Your task to perform on an android device: Open Wikipedia Image 0: 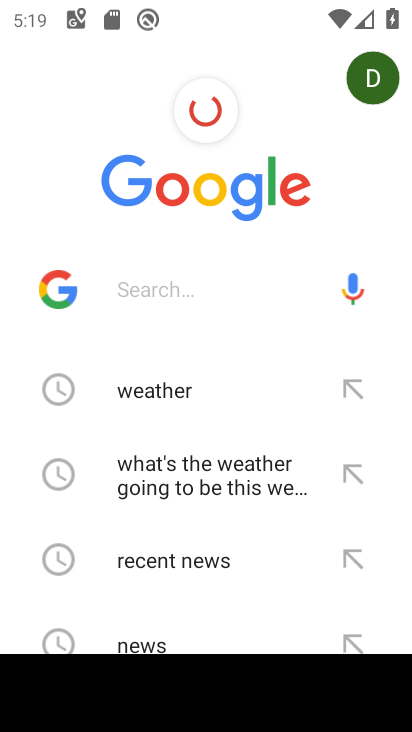
Step 0: press home button
Your task to perform on an android device: Open Wikipedia Image 1: 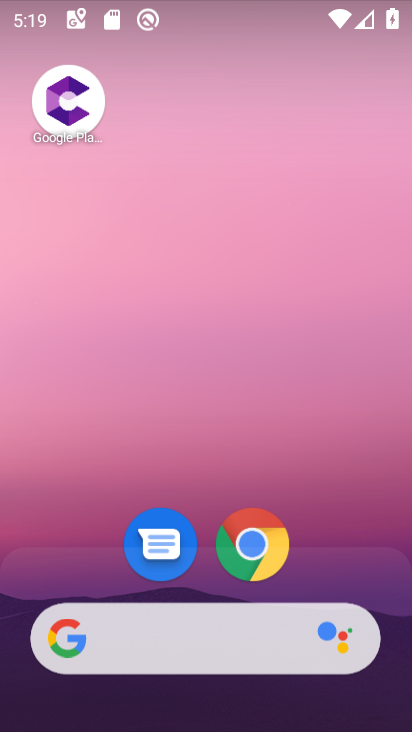
Step 1: click (238, 545)
Your task to perform on an android device: Open Wikipedia Image 2: 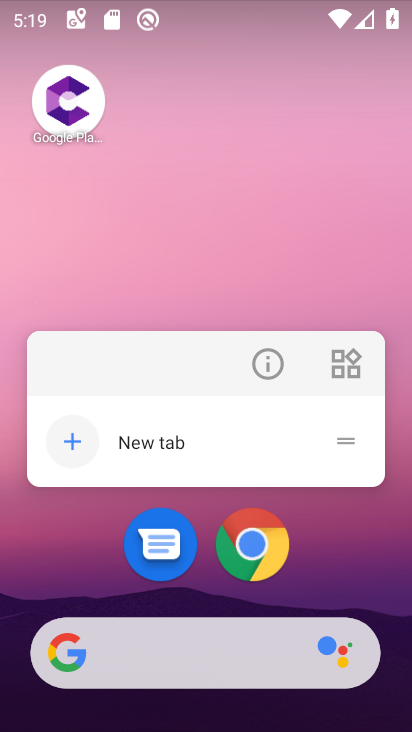
Step 2: click (258, 551)
Your task to perform on an android device: Open Wikipedia Image 3: 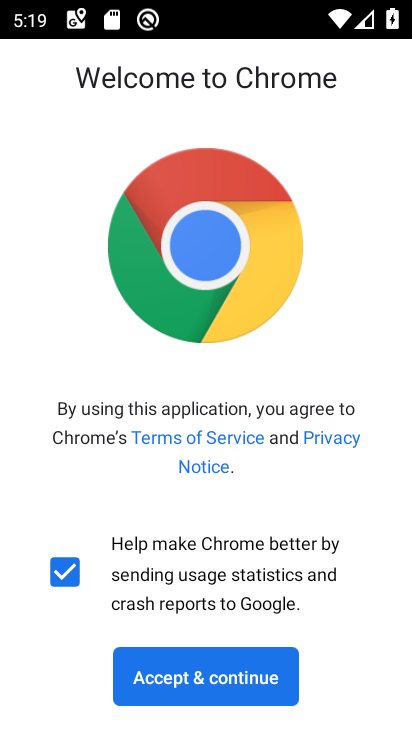
Step 3: click (242, 685)
Your task to perform on an android device: Open Wikipedia Image 4: 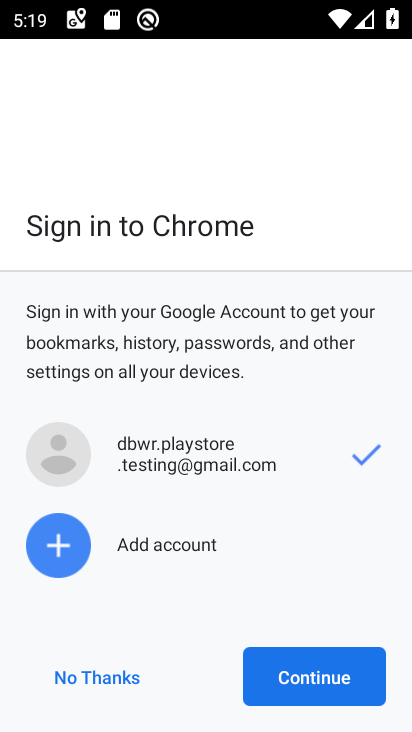
Step 4: click (337, 701)
Your task to perform on an android device: Open Wikipedia Image 5: 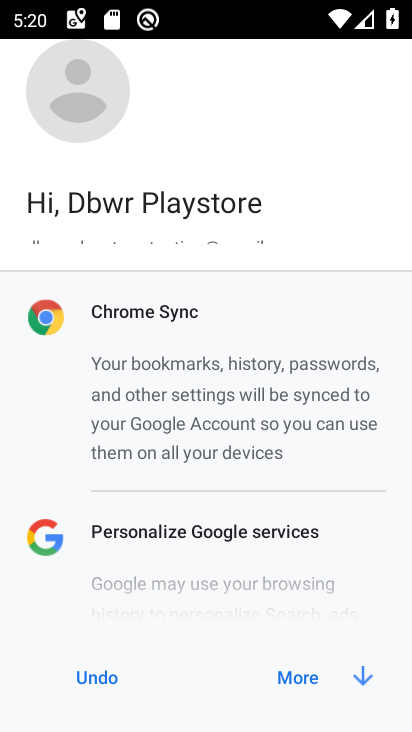
Step 5: click (337, 694)
Your task to perform on an android device: Open Wikipedia Image 6: 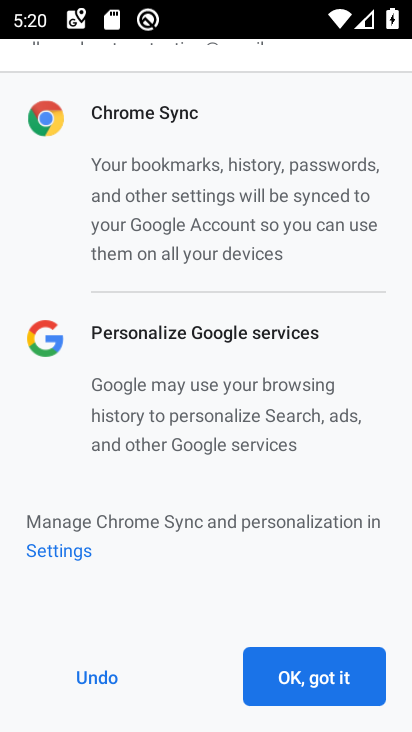
Step 6: click (337, 694)
Your task to perform on an android device: Open Wikipedia Image 7: 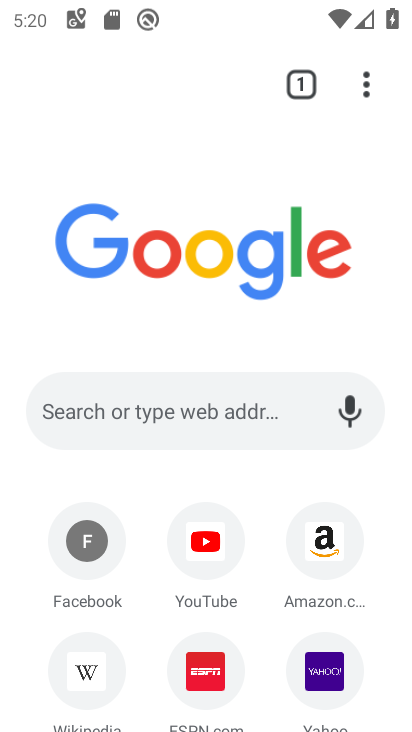
Step 7: click (85, 667)
Your task to perform on an android device: Open Wikipedia Image 8: 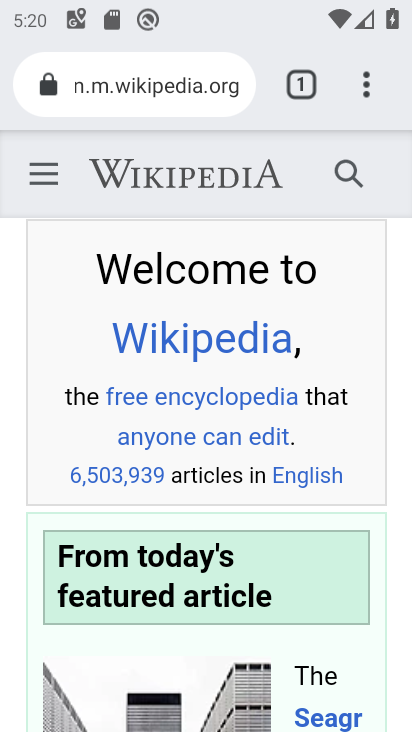
Step 8: task complete